Your task to perform on an android device: Go to Amazon Image 0: 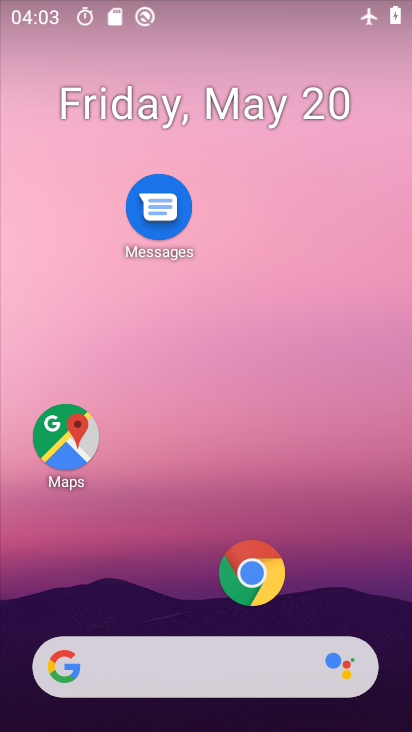
Step 0: click (265, 566)
Your task to perform on an android device: Go to Amazon Image 1: 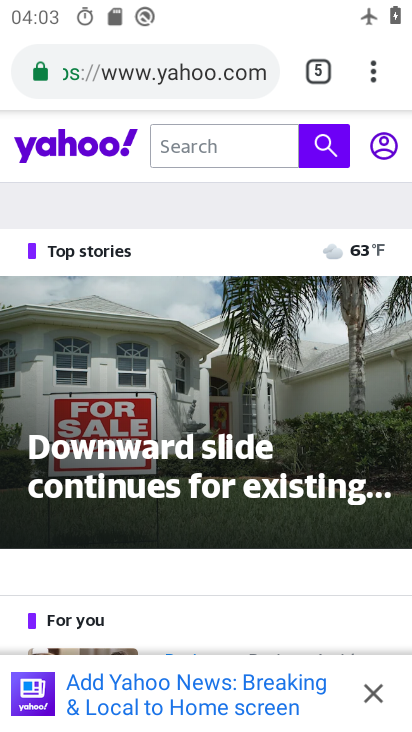
Step 1: click (313, 78)
Your task to perform on an android device: Go to Amazon Image 2: 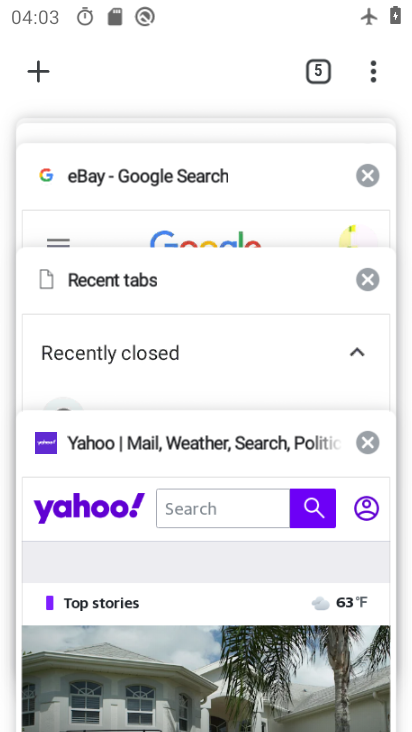
Step 2: click (40, 71)
Your task to perform on an android device: Go to Amazon Image 3: 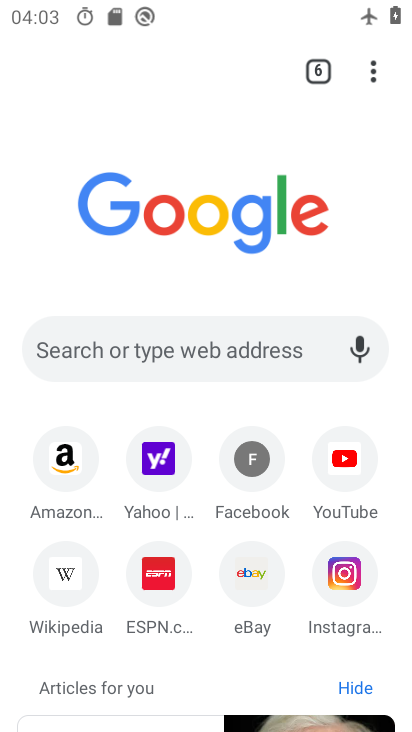
Step 3: click (68, 440)
Your task to perform on an android device: Go to Amazon Image 4: 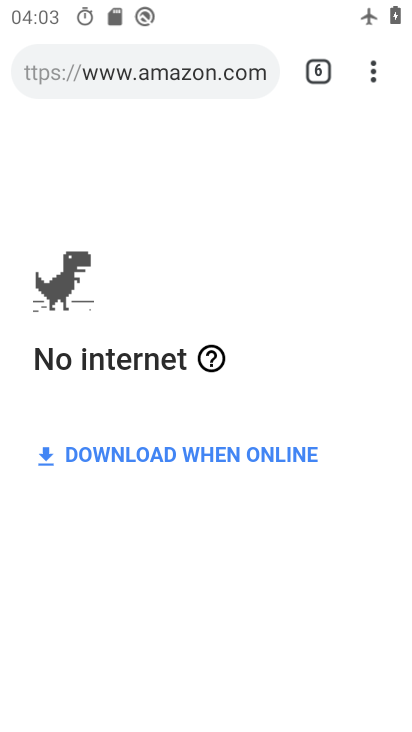
Step 4: task complete